Your task to perform on an android device: Open Chrome and go to settings Image 0: 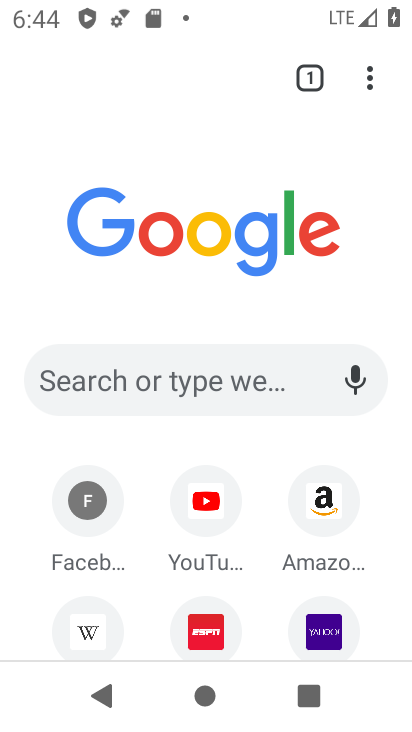
Step 0: click (372, 74)
Your task to perform on an android device: Open Chrome and go to settings Image 1: 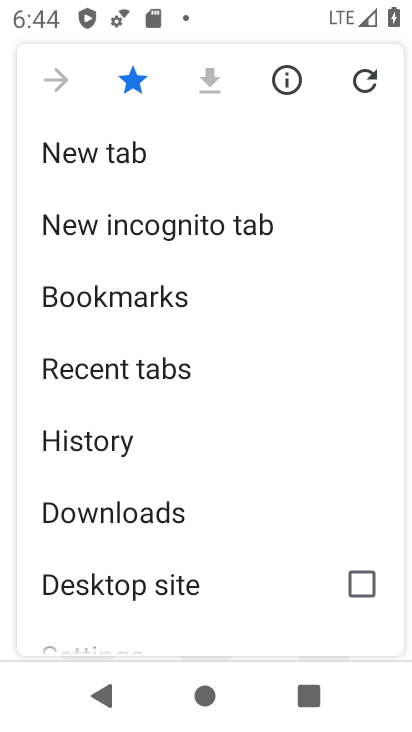
Step 1: drag from (237, 548) to (229, 220)
Your task to perform on an android device: Open Chrome and go to settings Image 2: 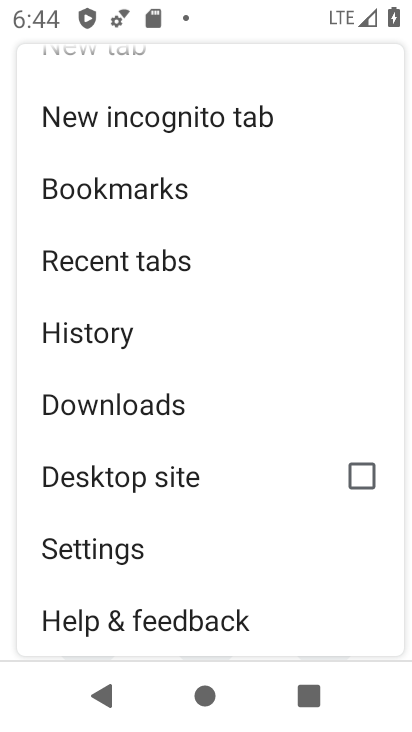
Step 2: click (108, 541)
Your task to perform on an android device: Open Chrome and go to settings Image 3: 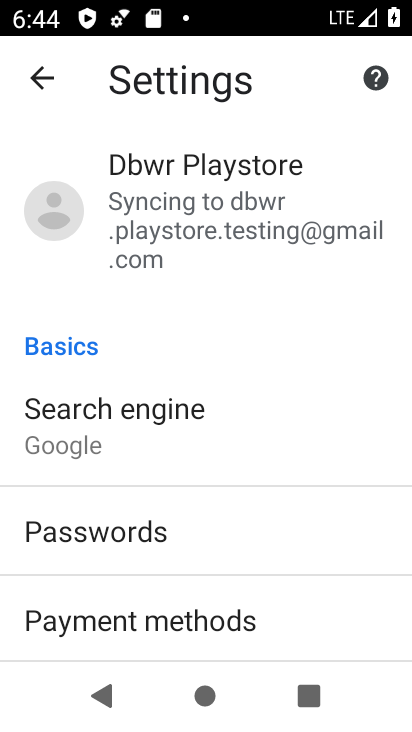
Step 3: task complete